Your task to perform on an android device: Go to Wikipedia Image 0: 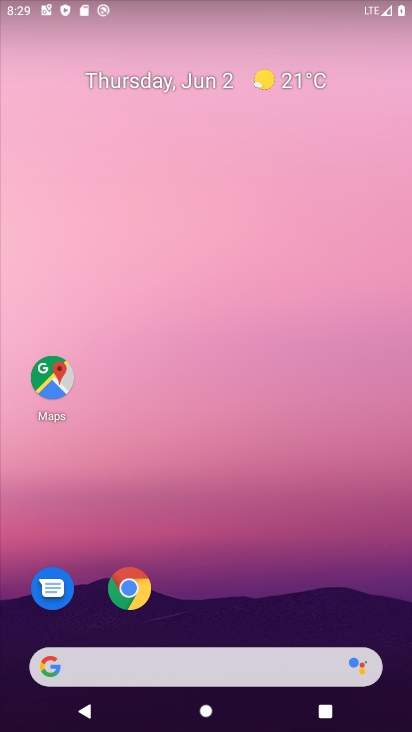
Step 0: drag from (244, 547) to (290, 155)
Your task to perform on an android device: Go to Wikipedia Image 1: 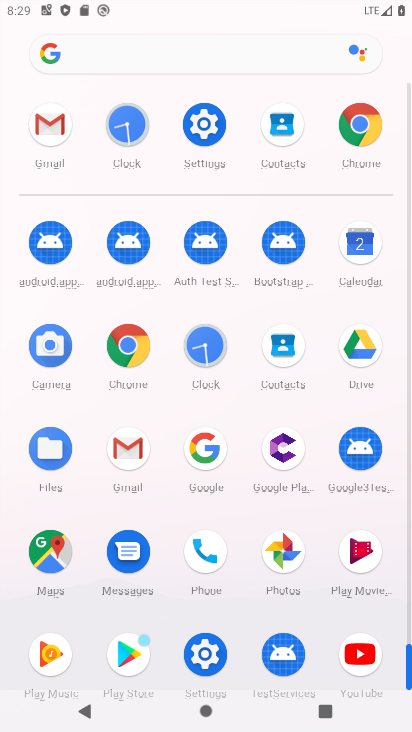
Step 1: click (365, 139)
Your task to perform on an android device: Go to Wikipedia Image 2: 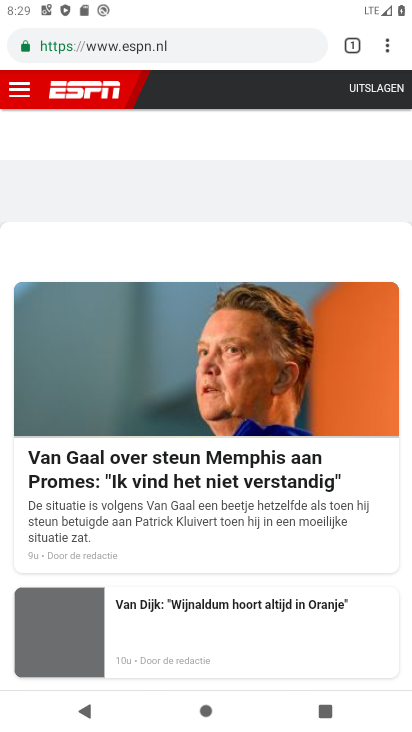
Step 2: click (249, 46)
Your task to perform on an android device: Go to Wikipedia Image 3: 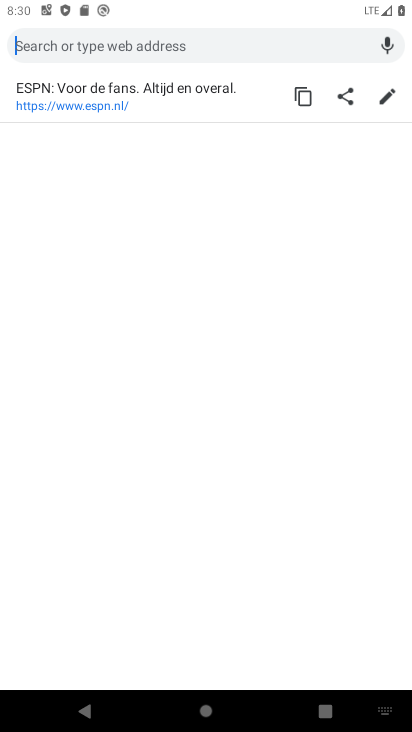
Step 3: type "wikipedia"
Your task to perform on an android device: Go to Wikipedia Image 4: 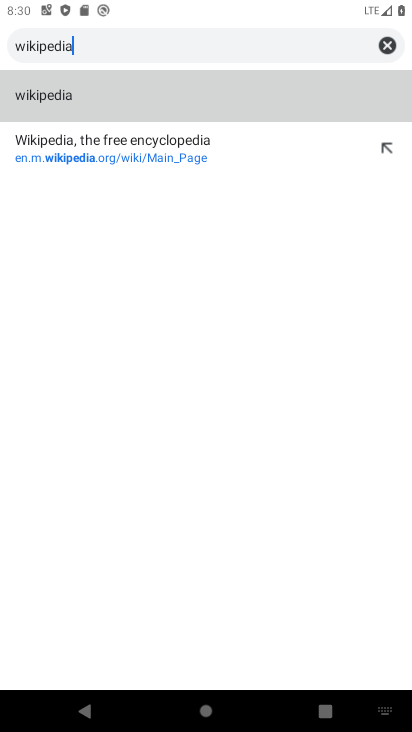
Step 4: click (241, 156)
Your task to perform on an android device: Go to Wikipedia Image 5: 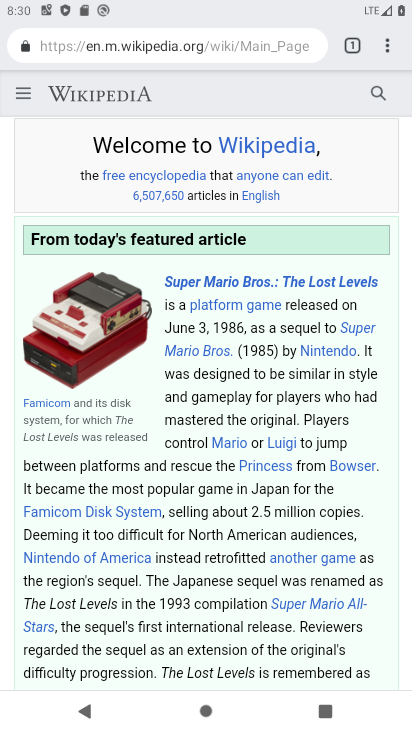
Step 5: task complete